Your task to perform on an android device: Search for Mexican restaurants on Maps Image 0: 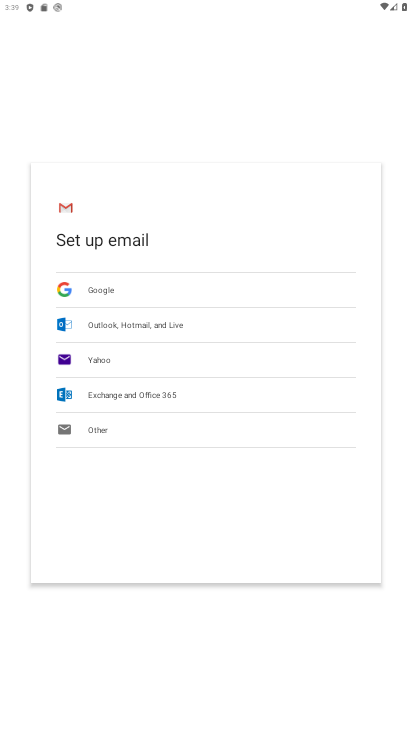
Step 0: press home button
Your task to perform on an android device: Search for Mexican restaurants on Maps Image 1: 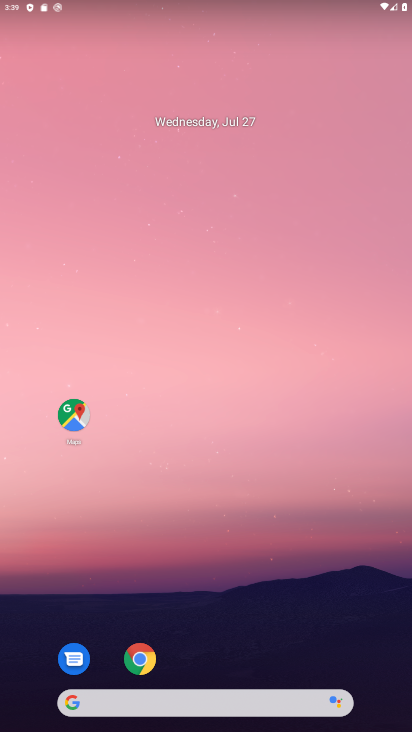
Step 1: click (72, 405)
Your task to perform on an android device: Search for Mexican restaurants on Maps Image 2: 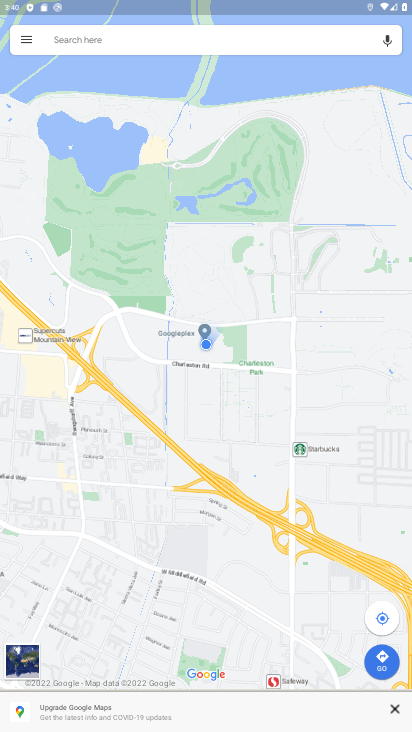
Step 2: click (262, 49)
Your task to perform on an android device: Search for Mexican restaurants on Maps Image 3: 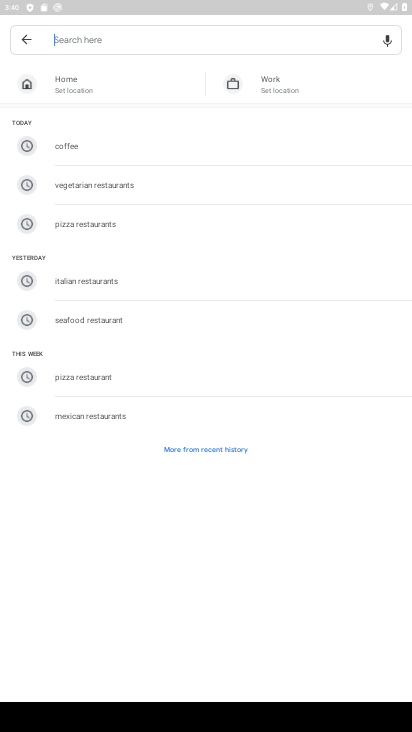
Step 3: type "mexican restaurants"
Your task to perform on an android device: Search for Mexican restaurants on Maps Image 4: 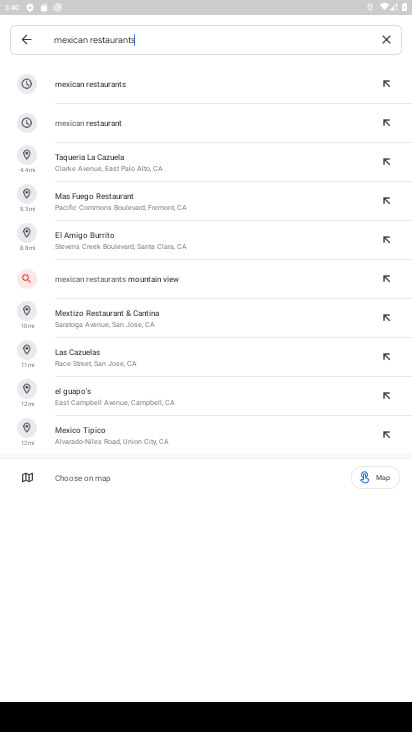
Step 4: click (87, 83)
Your task to perform on an android device: Search for Mexican restaurants on Maps Image 5: 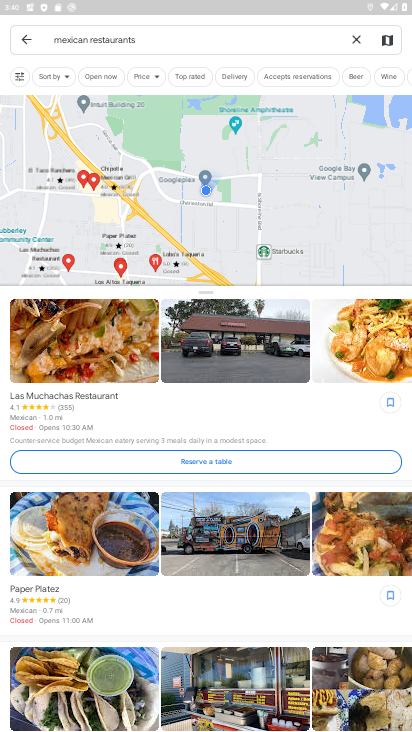
Step 5: task complete